Your task to perform on an android device: open a new tab in the chrome app Image 0: 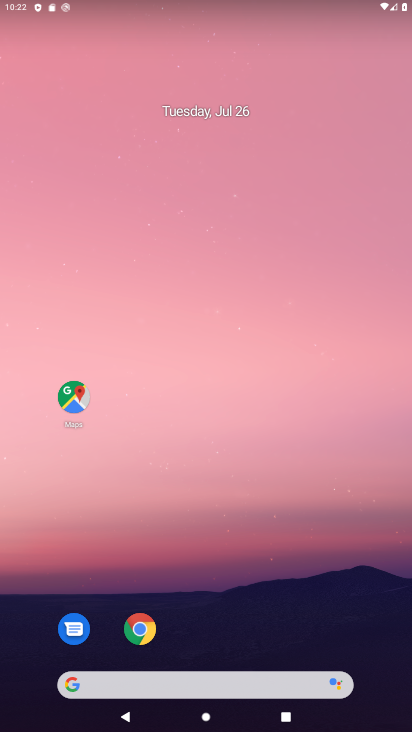
Step 0: click (150, 633)
Your task to perform on an android device: open a new tab in the chrome app Image 1: 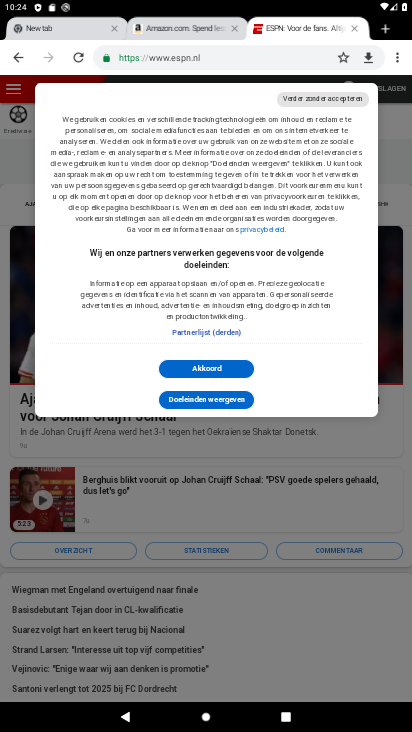
Step 1: task complete